Your task to perform on an android device: change the clock display to digital Image 0: 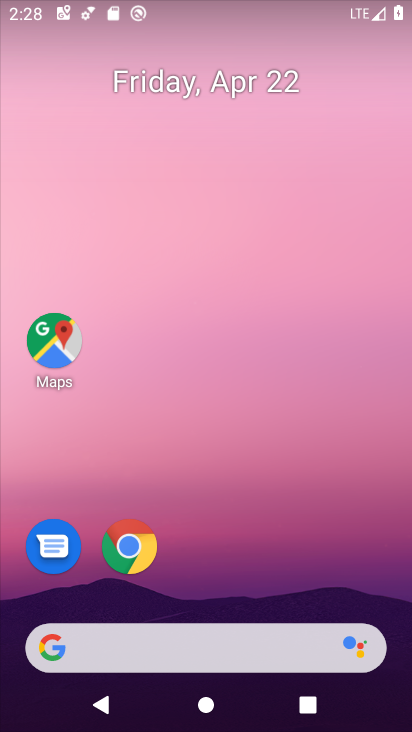
Step 0: drag from (256, 511) to (298, 214)
Your task to perform on an android device: change the clock display to digital Image 1: 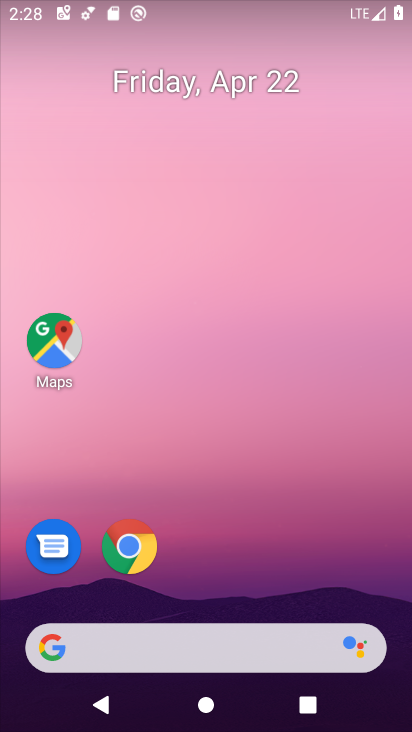
Step 1: drag from (247, 546) to (324, 177)
Your task to perform on an android device: change the clock display to digital Image 2: 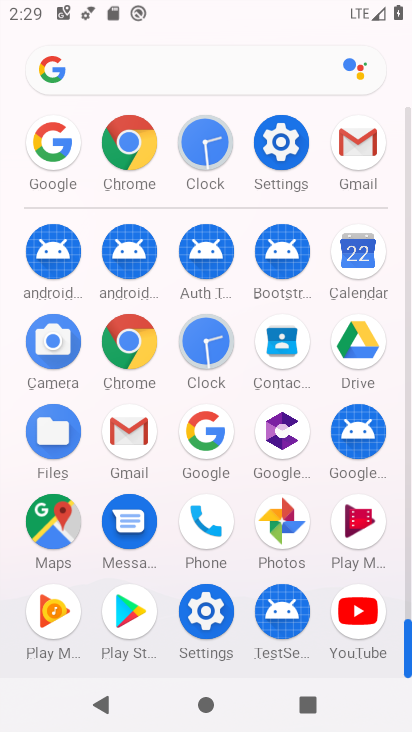
Step 2: drag from (268, 479) to (310, 269)
Your task to perform on an android device: change the clock display to digital Image 3: 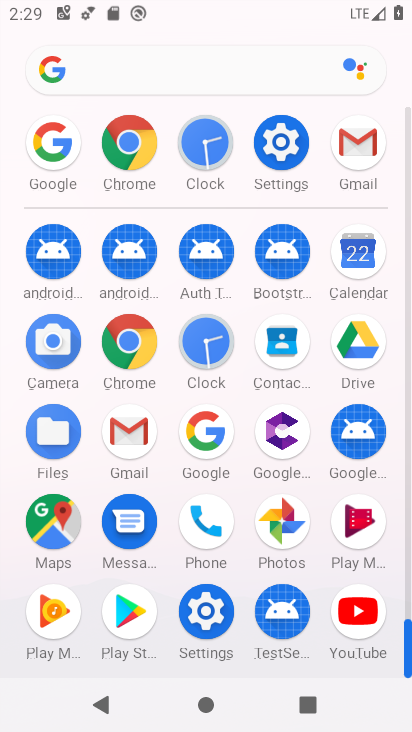
Step 3: click (214, 359)
Your task to perform on an android device: change the clock display to digital Image 4: 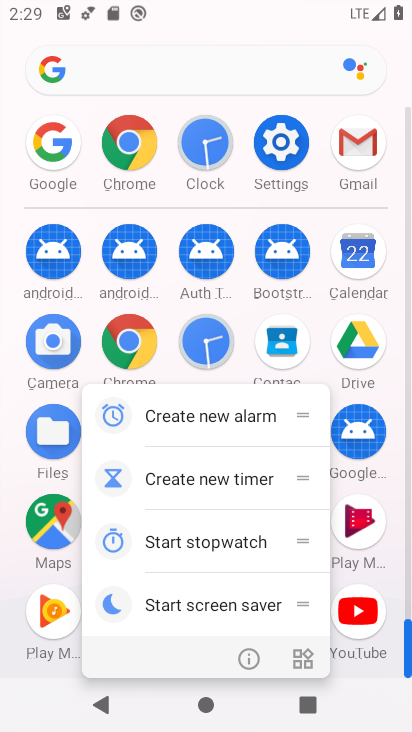
Step 4: click (210, 347)
Your task to perform on an android device: change the clock display to digital Image 5: 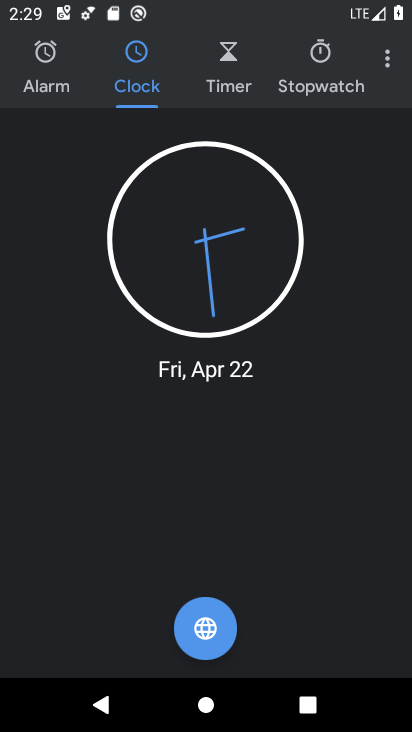
Step 5: click (388, 65)
Your task to perform on an android device: change the clock display to digital Image 6: 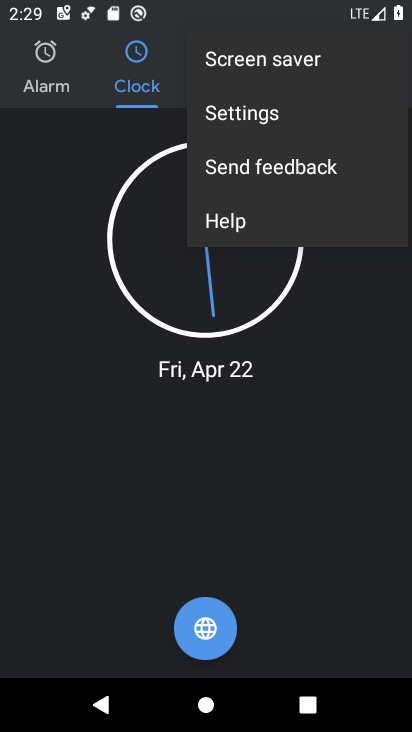
Step 6: click (251, 114)
Your task to perform on an android device: change the clock display to digital Image 7: 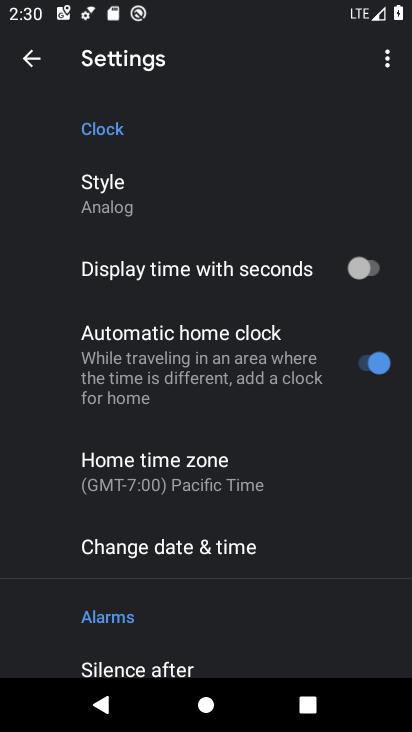
Step 7: click (186, 206)
Your task to perform on an android device: change the clock display to digital Image 8: 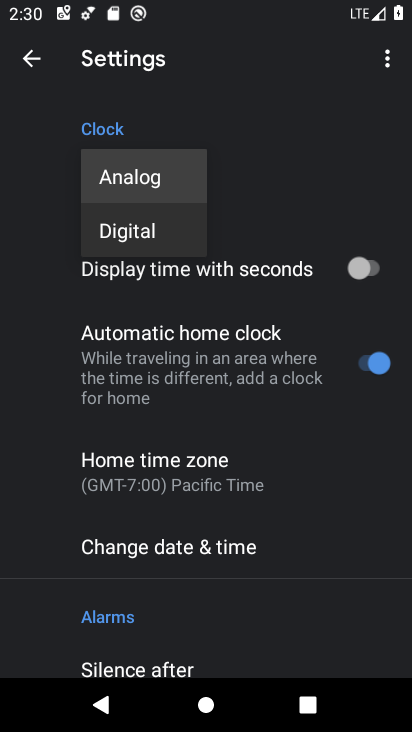
Step 8: click (149, 248)
Your task to perform on an android device: change the clock display to digital Image 9: 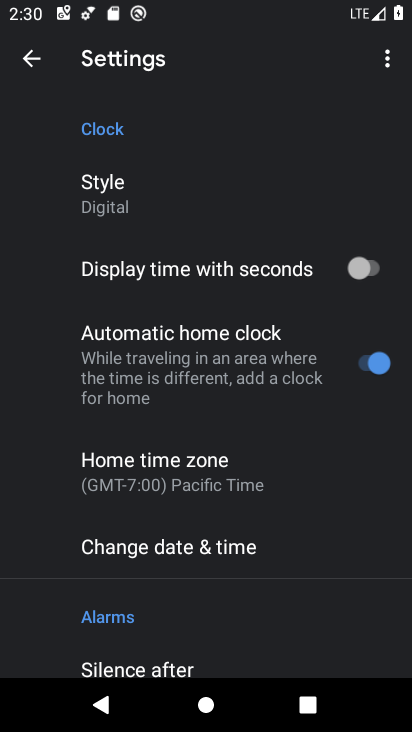
Step 9: task complete